Your task to perform on an android device: Open settings on Google Maps Image 0: 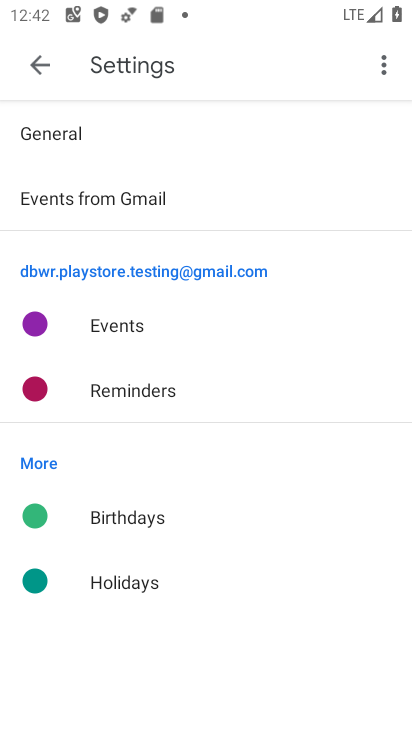
Step 0: press home button
Your task to perform on an android device: Open settings on Google Maps Image 1: 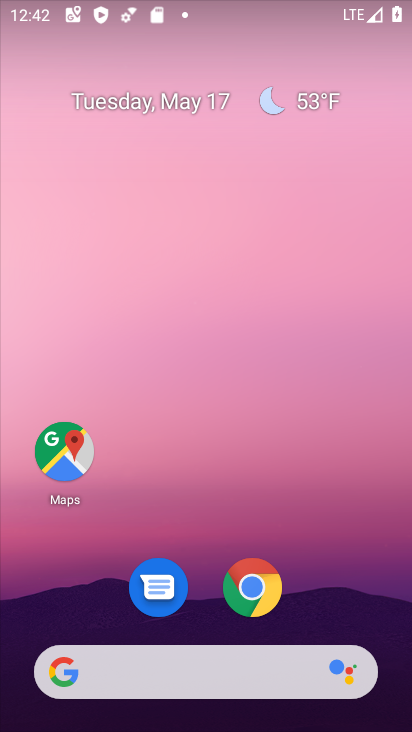
Step 1: drag from (221, 621) to (175, 43)
Your task to perform on an android device: Open settings on Google Maps Image 2: 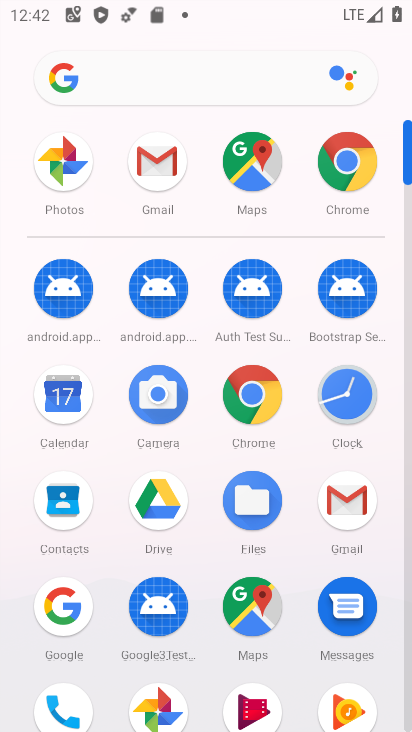
Step 2: click (245, 610)
Your task to perform on an android device: Open settings on Google Maps Image 3: 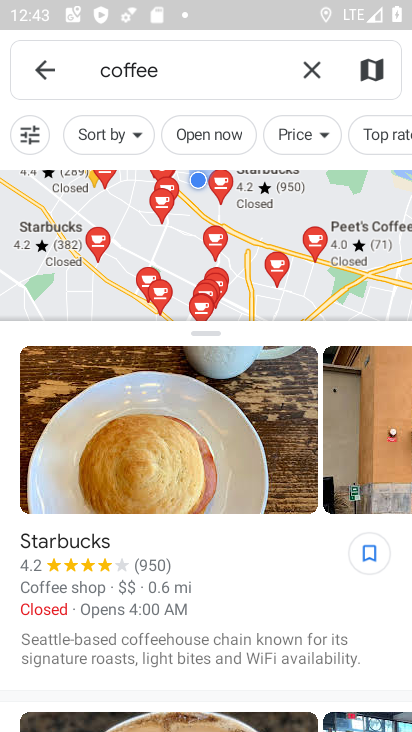
Step 3: click (33, 73)
Your task to perform on an android device: Open settings on Google Maps Image 4: 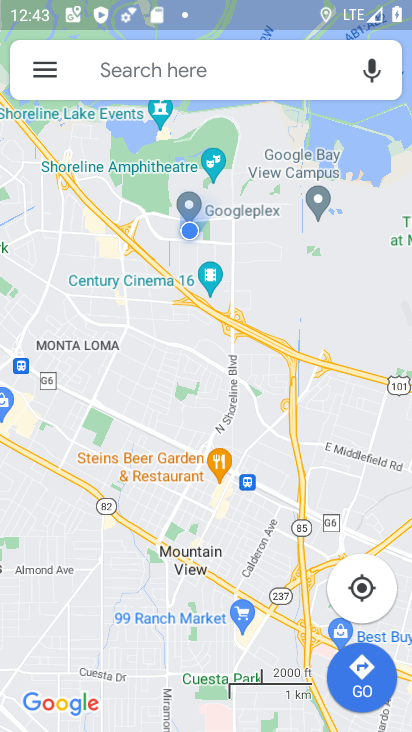
Step 4: click (64, 65)
Your task to perform on an android device: Open settings on Google Maps Image 5: 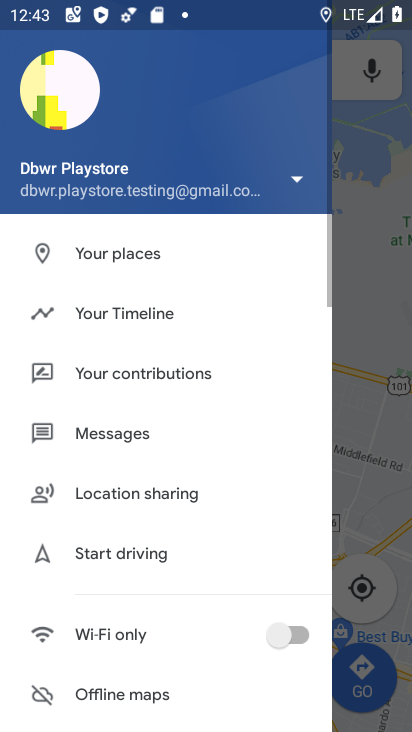
Step 5: drag from (165, 567) to (346, 210)
Your task to perform on an android device: Open settings on Google Maps Image 6: 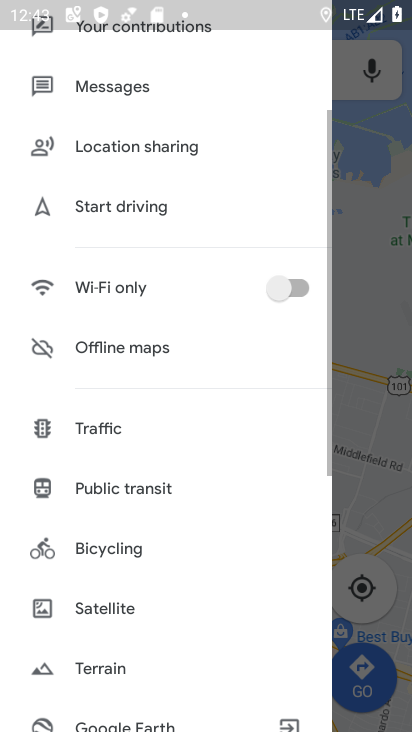
Step 6: drag from (46, 619) to (0, 86)
Your task to perform on an android device: Open settings on Google Maps Image 7: 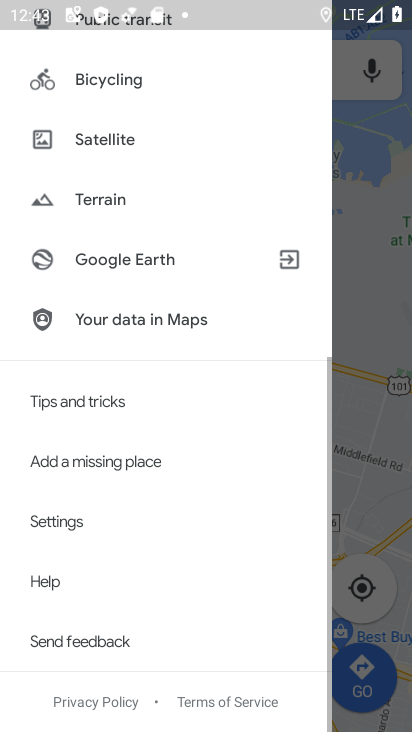
Step 7: click (62, 531)
Your task to perform on an android device: Open settings on Google Maps Image 8: 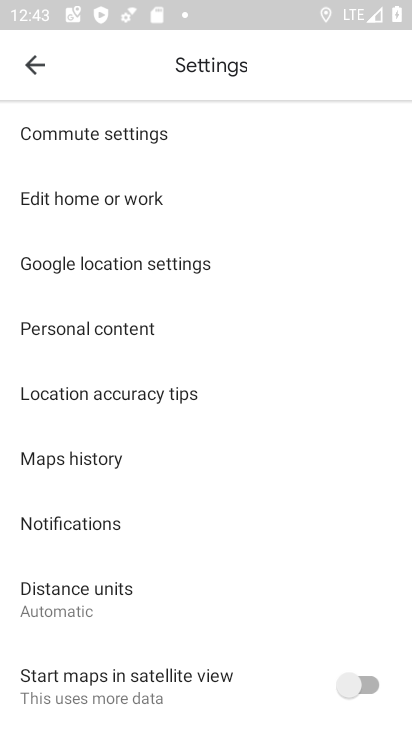
Step 8: task complete